Your task to perform on an android device: Open settings on Google Maps Image 0: 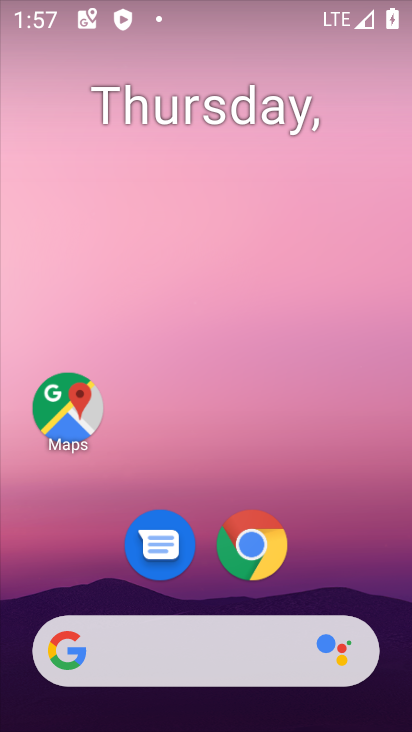
Step 0: click (47, 413)
Your task to perform on an android device: Open settings on Google Maps Image 1: 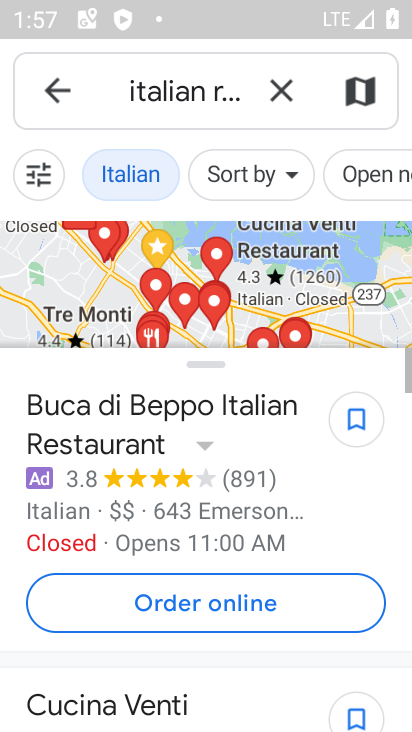
Step 1: click (54, 92)
Your task to perform on an android device: Open settings on Google Maps Image 2: 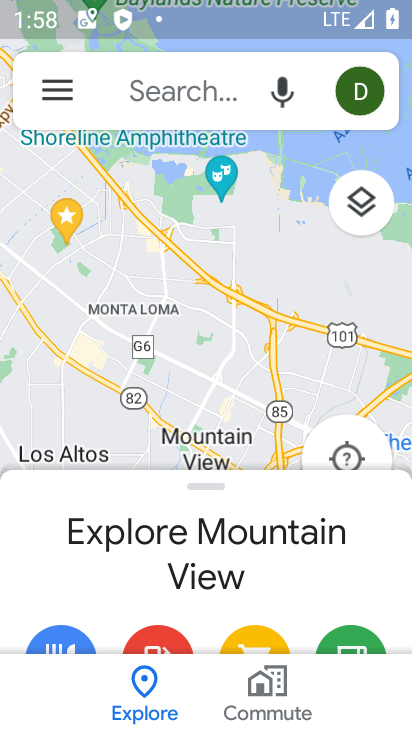
Step 2: click (370, 92)
Your task to perform on an android device: Open settings on Google Maps Image 3: 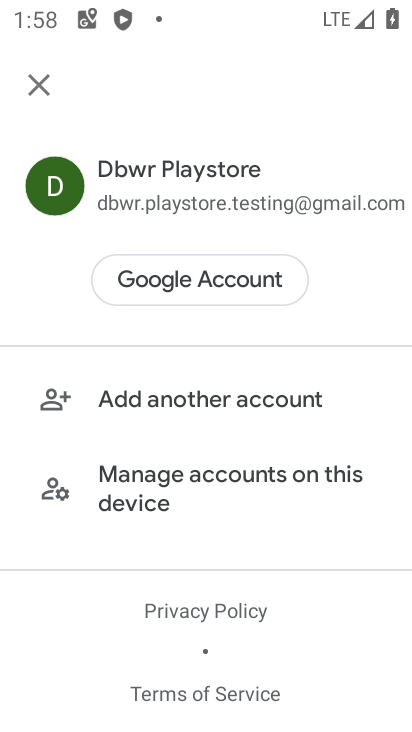
Step 3: drag from (265, 554) to (247, 93)
Your task to perform on an android device: Open settings on Google Maps Image 4: 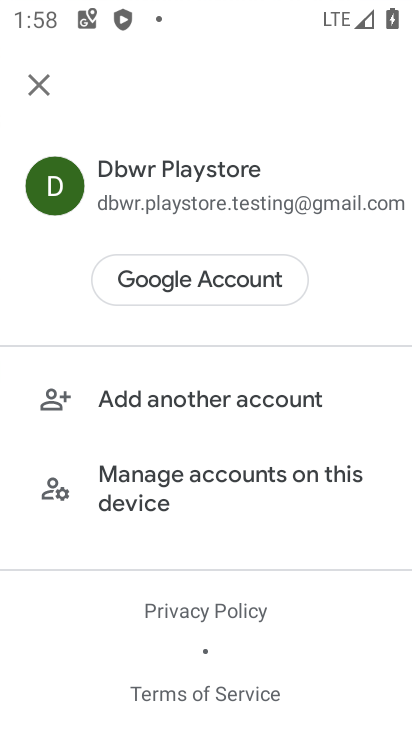
Step 4: click (208, 207)
Your task to perform on an android device: Open settings on Google Maps Image 5: 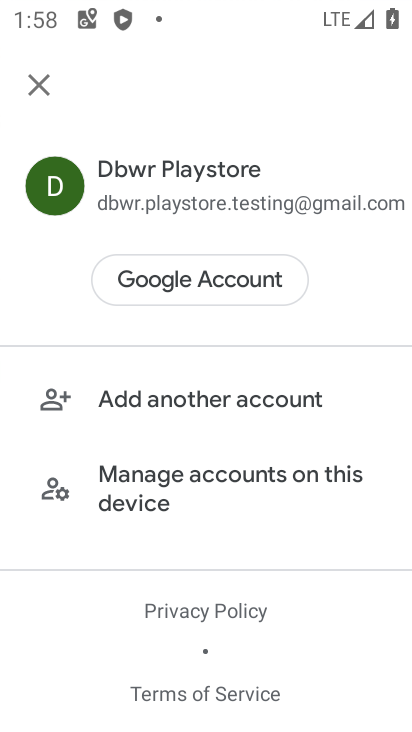
Step 5: drag from (260, 618) to (331, 114)
Your task to perform on an android device: Open settings on Google Maps Image 6: 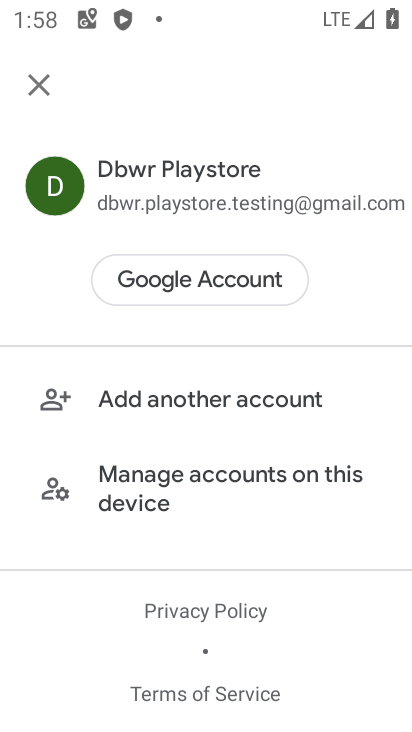
Step 6: click (51, 73)
Your task to perform on an android device: Open settings on Google Maps Image 7: 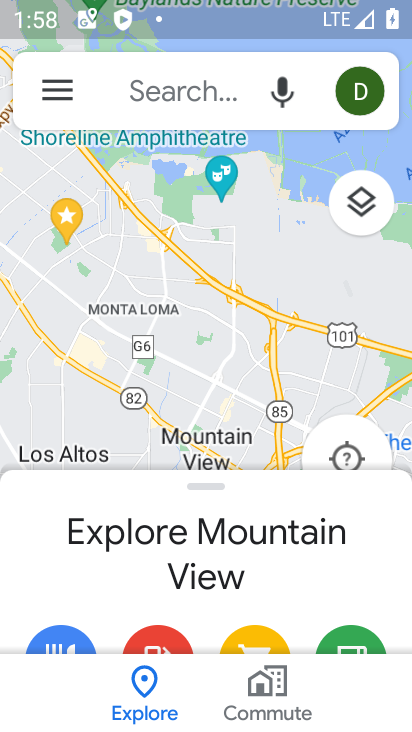
Step 7: click (61, 87)
Your task to perform on an android device: Open settings on Google Maps Image 8: 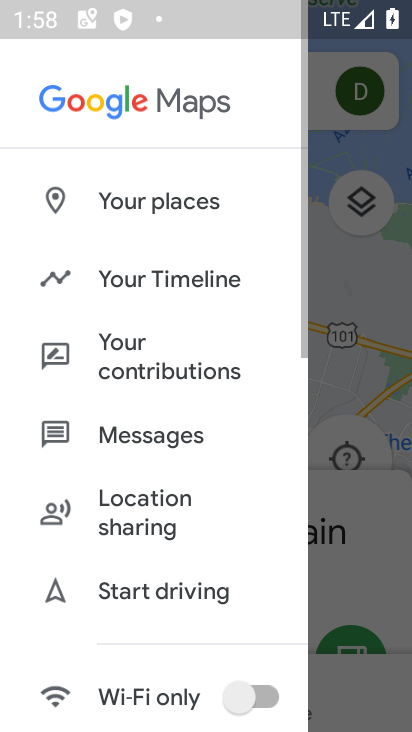
Step 8: drag from (139, 583) to (134, 51)
Your task to perform on an android device: Open settings on Google Maps Image 9: 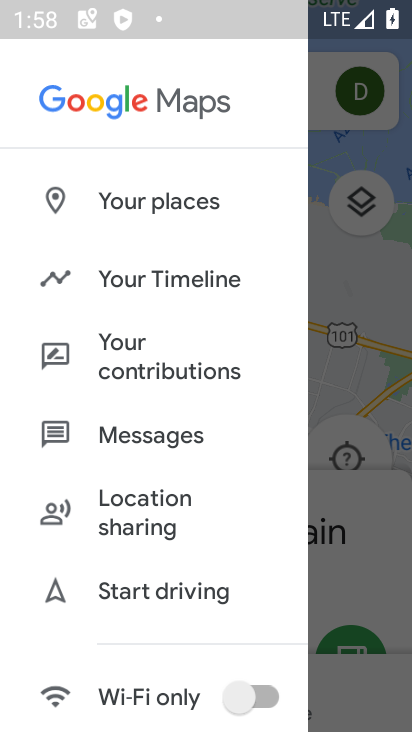
Step 9: drag from (148, 619) to (84, 3)
Your task to perform on an android device: Open settings on Google Maps Image 10: 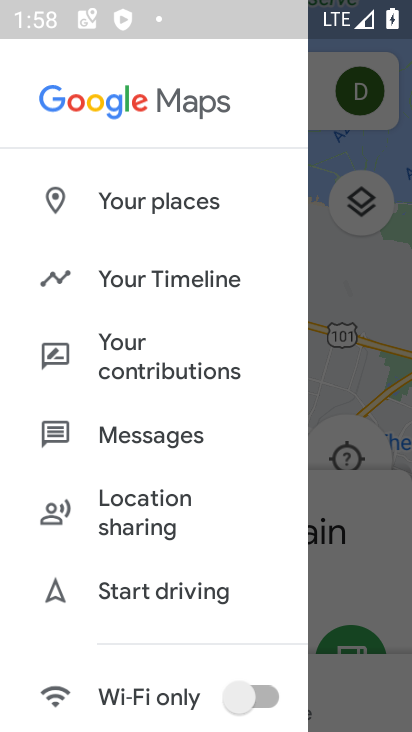
Step 10: drag from (126, 627) to (122, 0)
Your task to perform on an android device: Open settings on Google Maps Image 11: 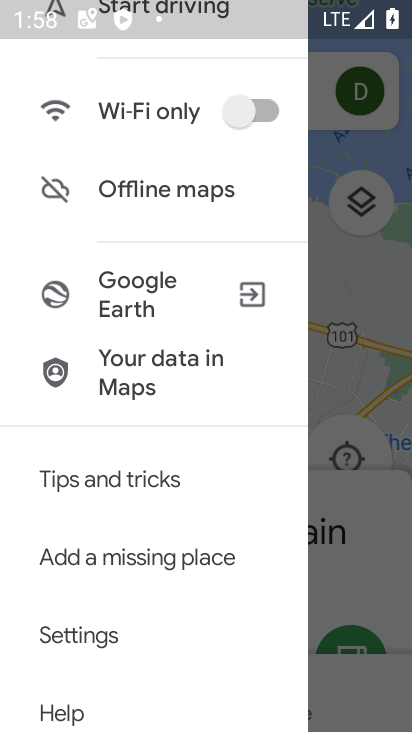
Step 11: click (102, 637)
Your task to perform on an android device: Open settings on Google Maps Image 12: 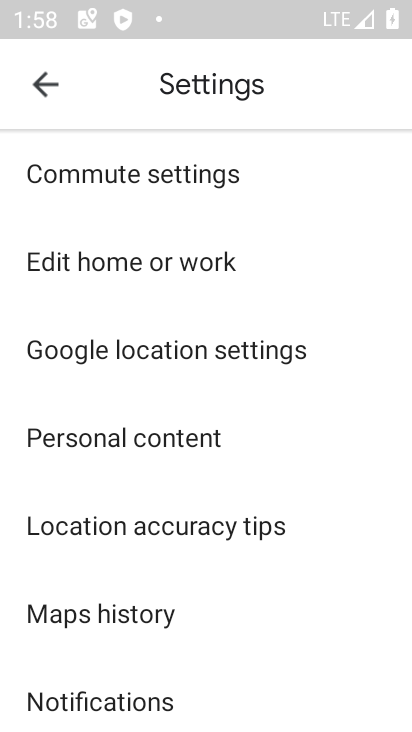
Step 12: task complete